Your task to perform on an android device: Open the phone app and click the voicemail tab. Image 0: 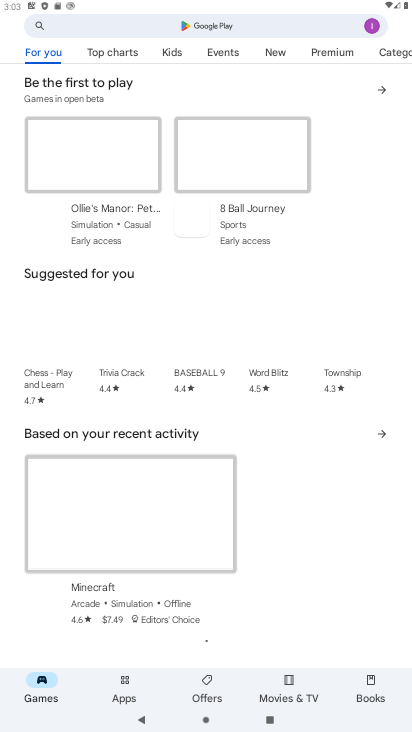
Step 0: press home button
Your task to perform on an android device: Open the phone app and click the voicemail tab. Image 1: 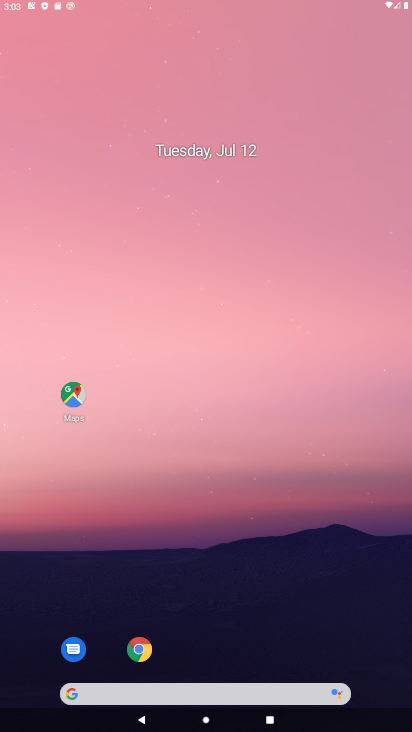
Step 1: drag from (171, 683) to (175, 7)
Your task to perform on an android device: Open the phone app and click the voicemail tab. Image 2: 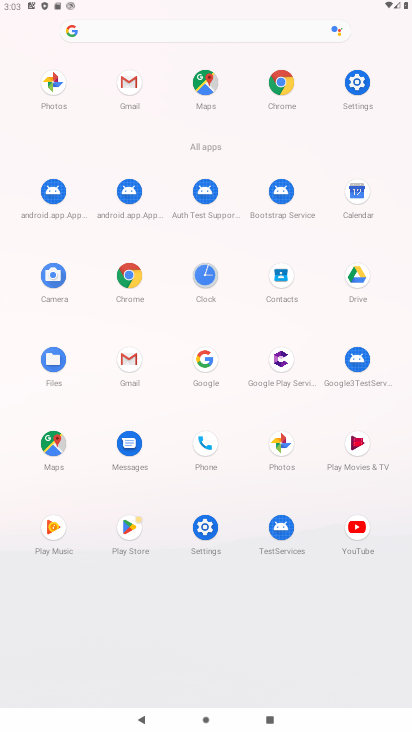
Step 2: click (207, 447)
Your task to perform on an android device: Open the phone app and click the voicemail tab. Image 3: 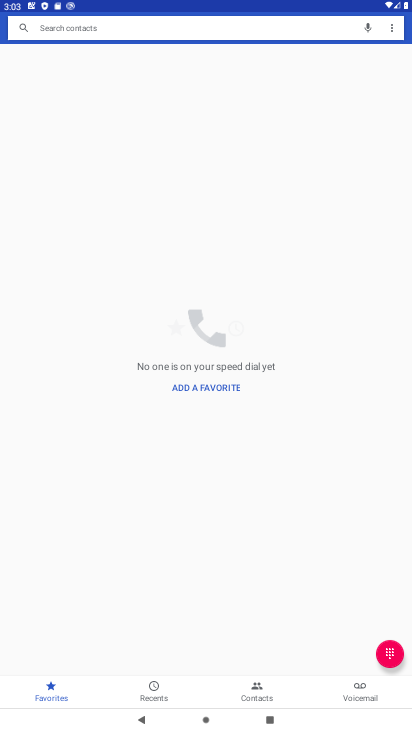
Step 3: click (358, 694)
Your task to perform on an android device: Open the phone app and click the voicemail tab. Image 4: 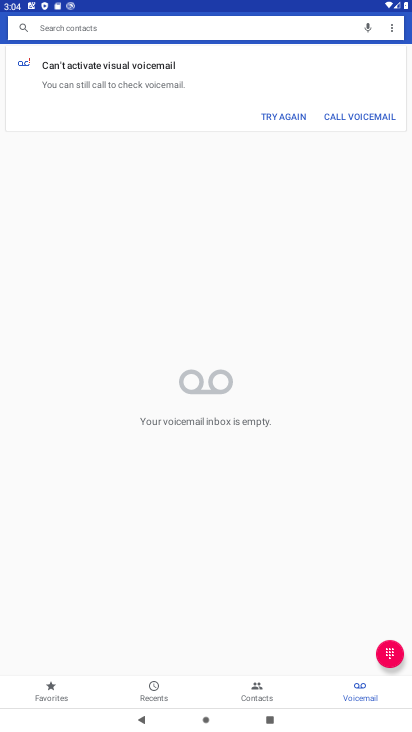
Step 4: task complete